Your task to perform on an android device: Open the calendar app, open the side menu, and click the "Day" option Image 0: 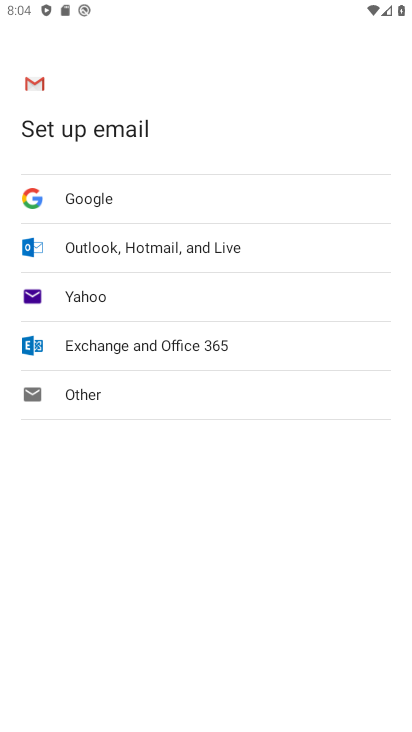
Step 0: press back button
Your task to perform on an android device: Open the calendar app, open the side menu, and click the "Day" option Image 1: 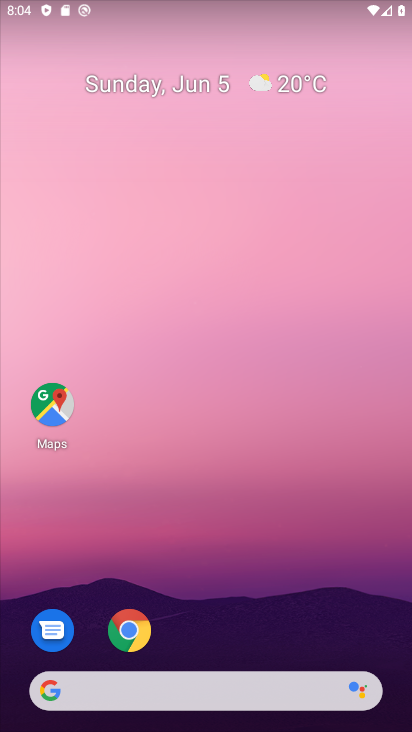
Step 1: drag from (270, 586) to (243, 76)
Your task to perform on an android device: Open the calendar app, open the side menu, and click the "Day" option Image 2: 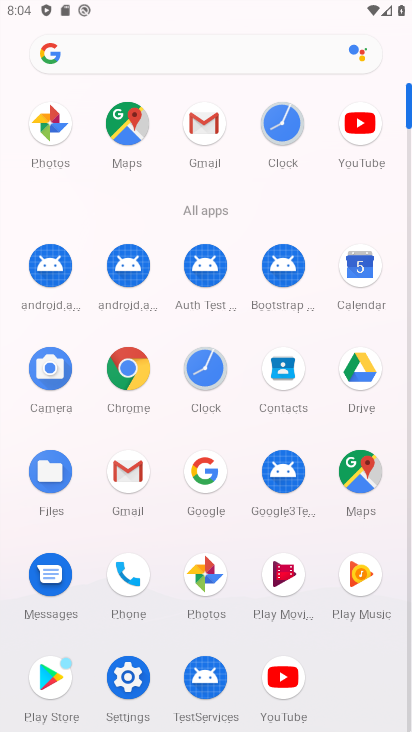
Step 2: click (361, 268)
Your task to perform on an android device: Open the calendar app, open the side menu, and click the "Day" option Image 3: 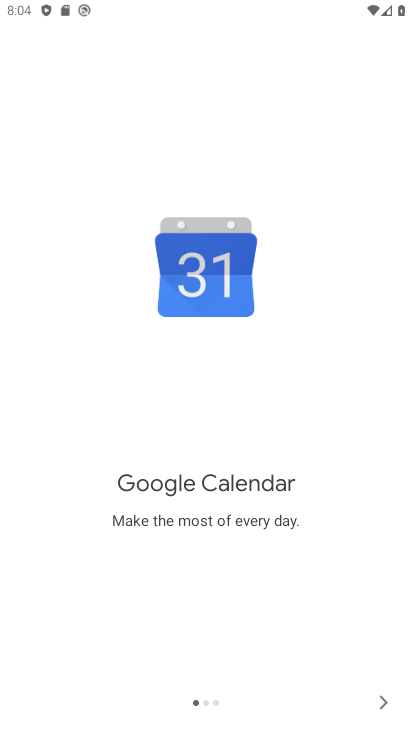
Step 3: click (383, 700)
Your task to perform on an android device: Open the calendar app, open the side menu, and click the "Day" option Image 4: 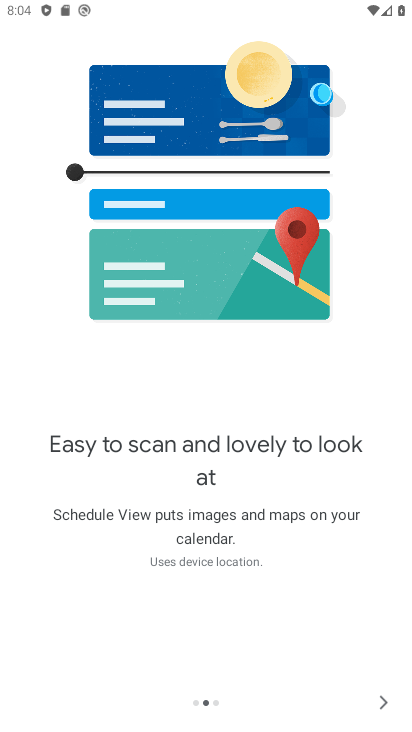
Step 4: click (383, 700)
Your task to perform on an android device: Open the calendar app, open the side menu, and click the "Day" option Image 5: 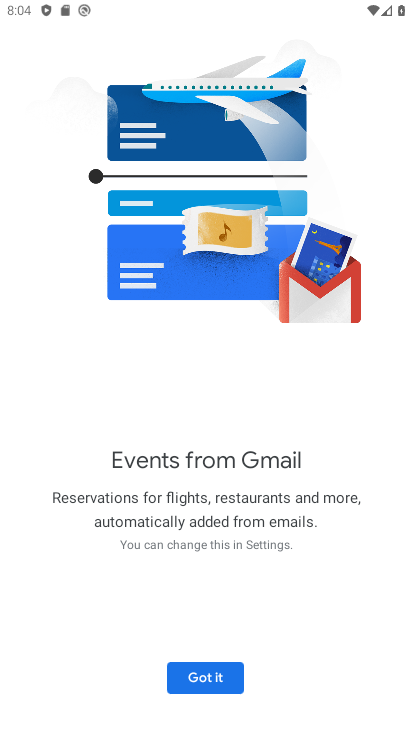
Step 5: click (198, 675)
Your task to perform on an android device: Open the calendar app, open the side menu, and click the "Day" option Image 6: 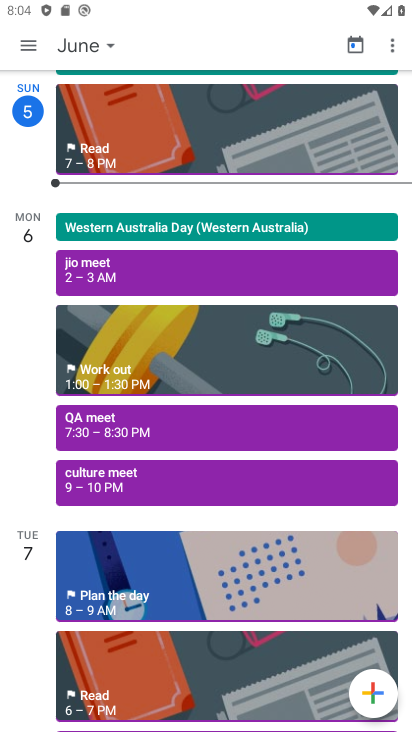
Step 6: click (29, 48)
Your task to perform on an android device: Open the calendar app, open the side menu, and click the "Day" option Image 7: 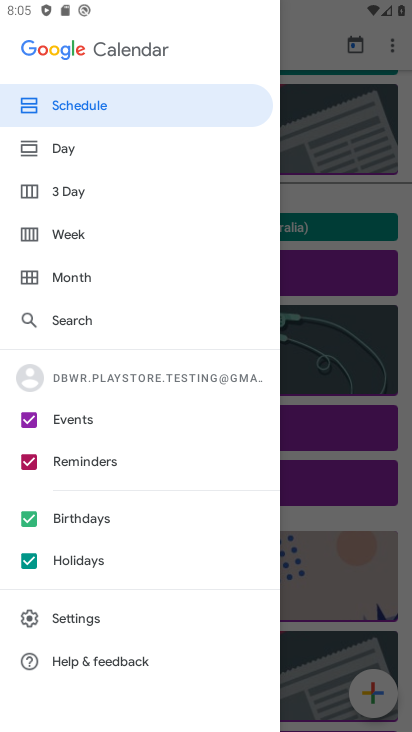
Step 7: click (60, 144)
Your task to perform on an android device: Open the calendar app, open the side menu, and click the "Day" option Image 8: 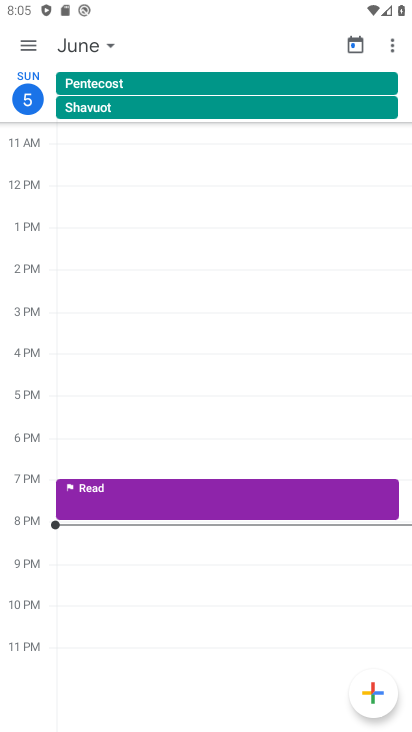
Step 8: task complete